Your task to perform on an android device: turn on showing notifications on the lock screen Image 0: 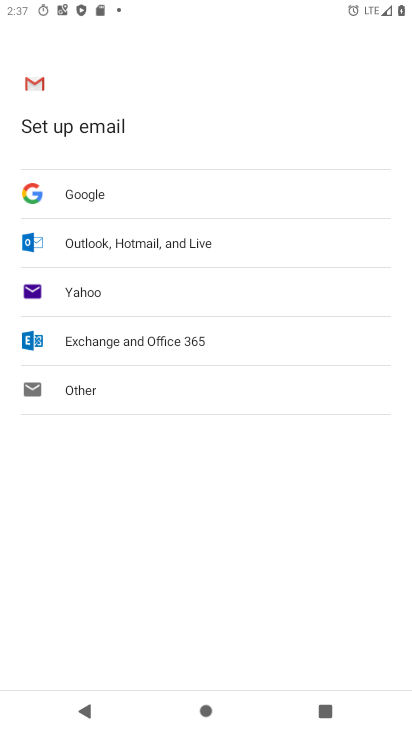
Step 0: press home button
Your task to perform on an android device: turn on showing notifications on the lock screen Image 1: 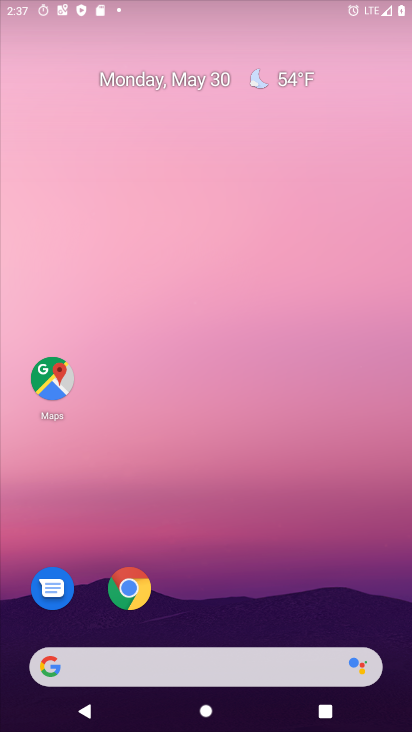
Step 1: drag from (181, 605) to (197, 68)
Your task to perform on an android device: turn on showing notifications on the lock screen Image 2: 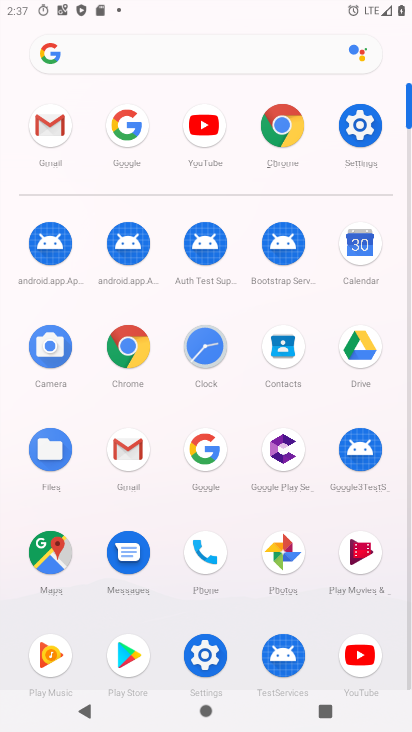
Step 2: click (365, 121)
Your task to perform on an android device: turn on showing notifications on the lock screen Image 3: 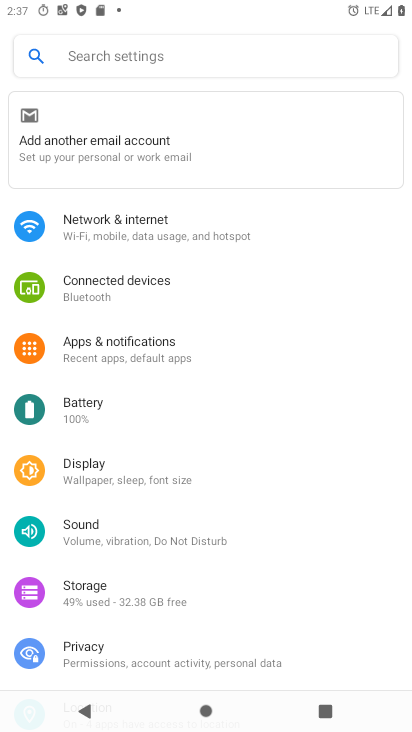
Step 3: click (115, 354)
Your task to perform on an android device: turn on showing notifications on the lock screen Image 4: 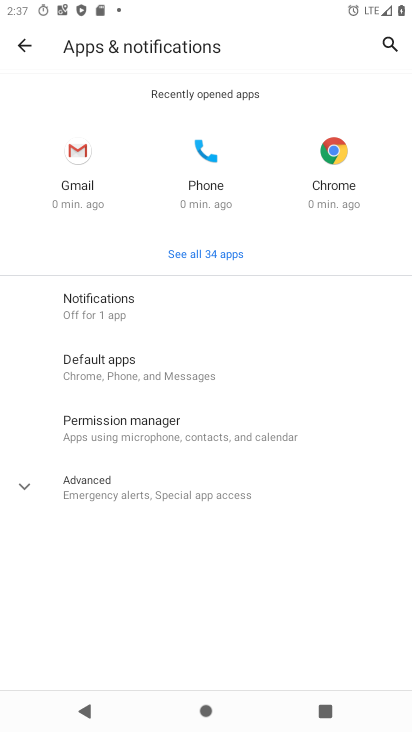
Step 4: click (119, 311)
Your task to perform on an android device: turn on showing notifications on the lock screen Image 5: 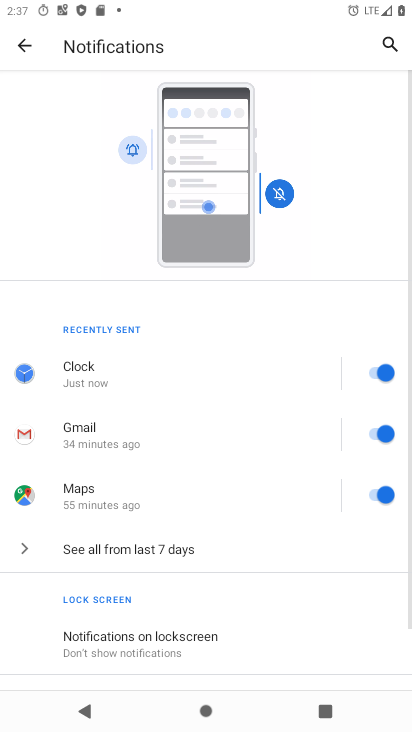
Step 5: drag from (187, 627) to (181, 324)
Your task to perform on an android device: turn on showing notifications on the lock screen Image 6: 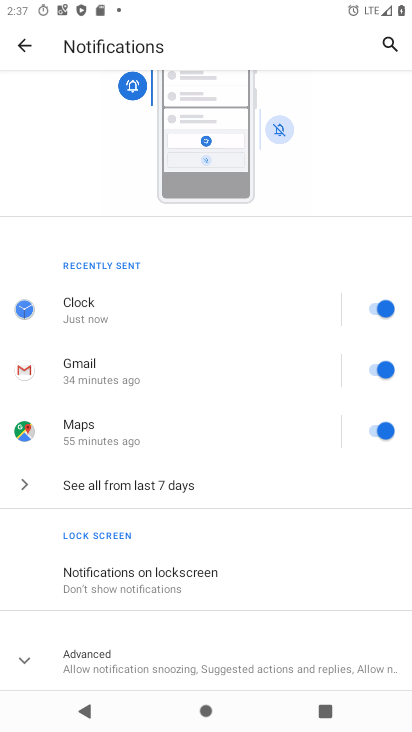
Step 6: click (111, 567)
Your task to perform on an android device: turn on showing notifications on the lock screen Image 7: 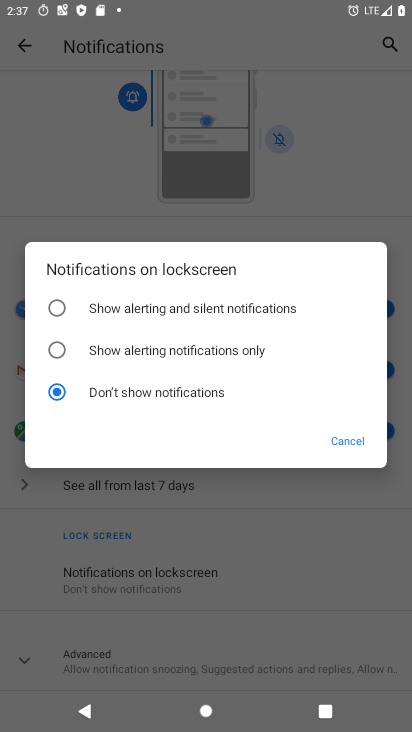
Step 7: click (56, 309)
Your task to perform on an android device: turn on showing notifications on the lock screen Image 8: 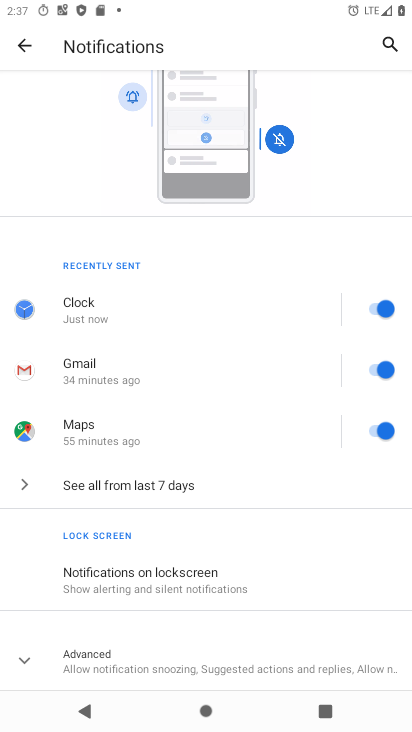
Step 8: task complete